Your task to perform on an android device: What is the news today? Image 0: 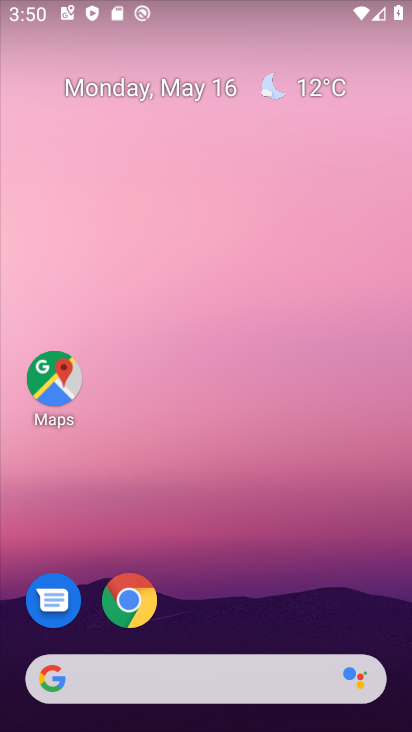
Step 0: drag from (172, 660) to (287, 164)
Your task to perform on an android device: What is the news today? Image 1: 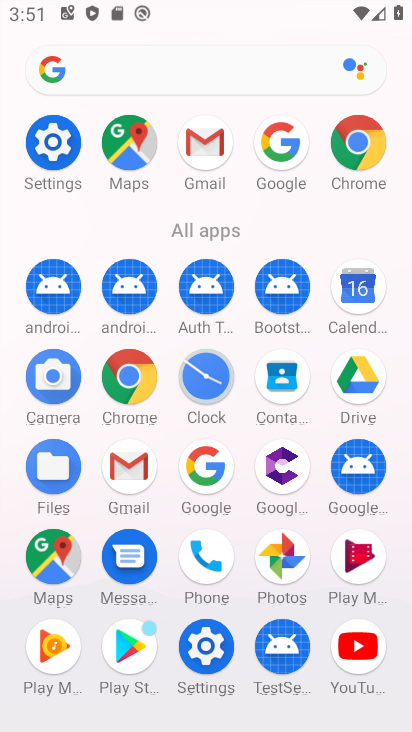
Step 1: click (206, 467)
Your task to perform on an android device: What is the news today? Image 2: 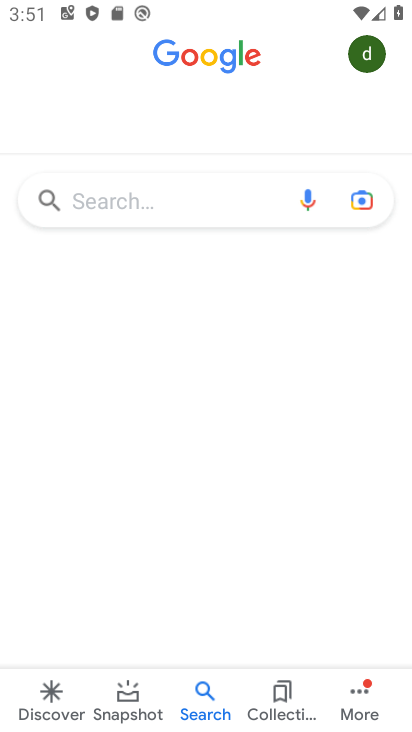
Step 2: click (108, 191)
Your task to perform on an android device: What is the news today? Image 3: 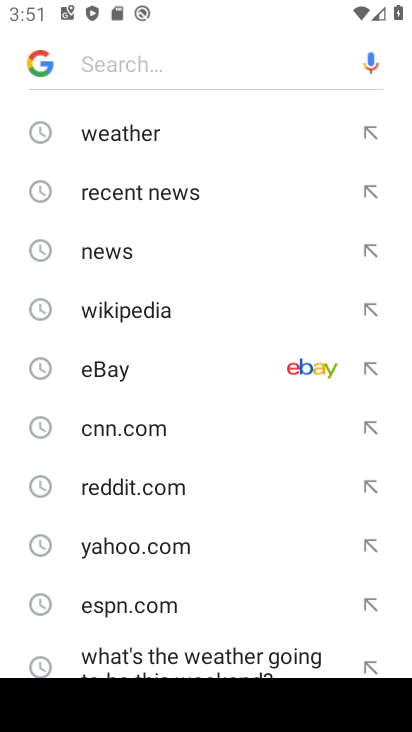
Step 3: drag from (138, 624) to (182, 312)
Your task to perform on an android device: What is the news today? Image 4: 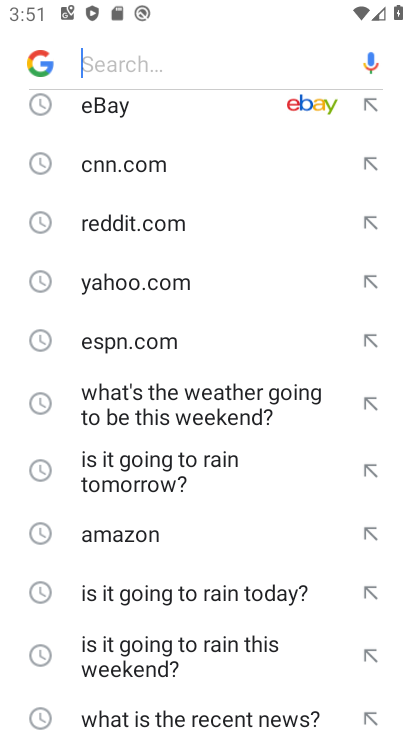
Step 4: drag from (116, 699) to (139, 363)
Your task to perform on an android device: What is the news today? Image 5: 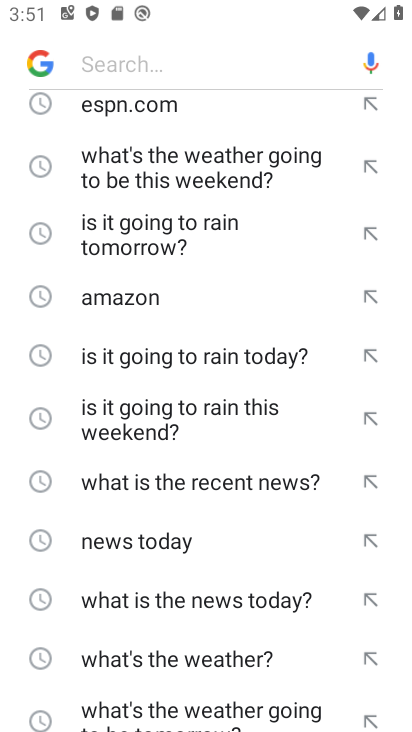
Step 5: click (138, 594)
Your task to perform on an android device: What is the news today? Image 6: 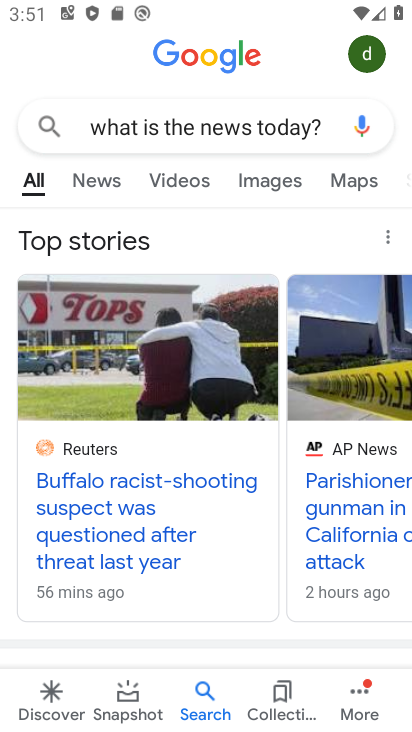
Step 6: task complete